Your task to perform on an android device: Show me the alarms in the clock app Image 0: 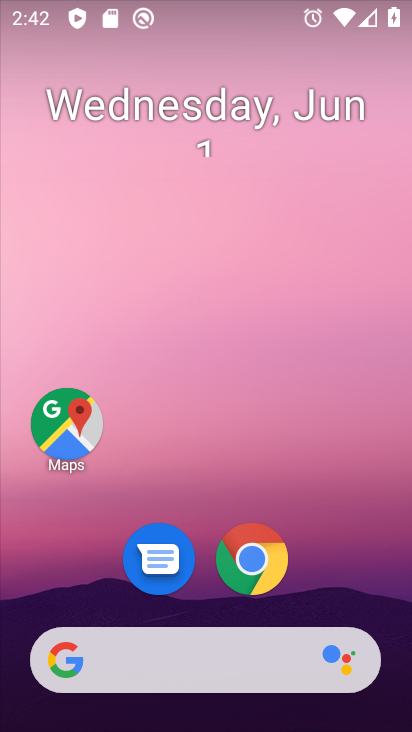
Step 0: drag from (330, 605) to (358, 1)
Your task to perform on an android device: Show me the alarms in the clock app Image 1: 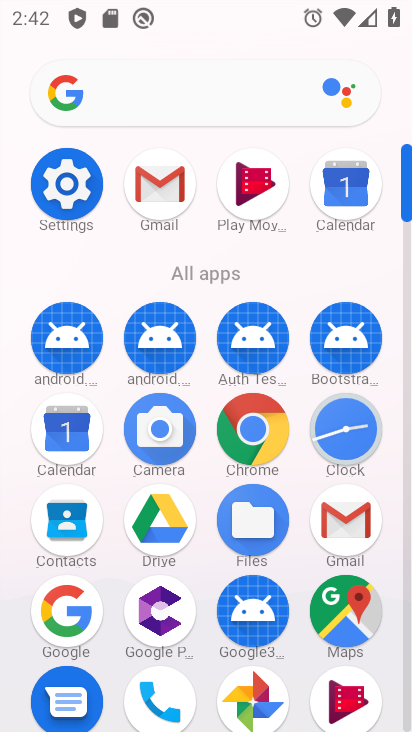
Step 1: click (343, 424)
Your task to perform on an android device: Show me the alarms in the clock app Image 2: 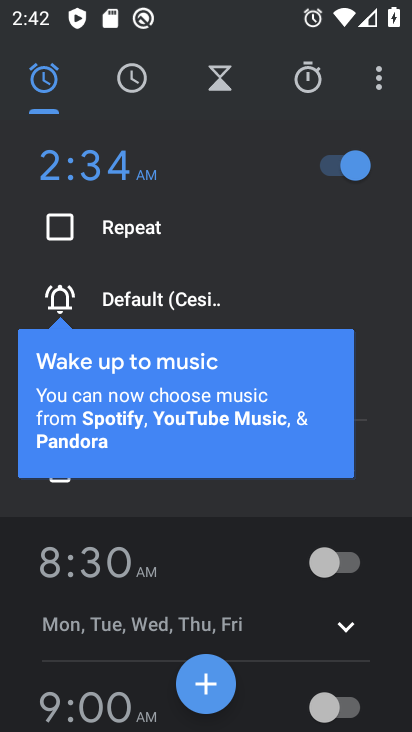
Step 2: task complete